Your task to perform on an android device: check battery use Image 0: 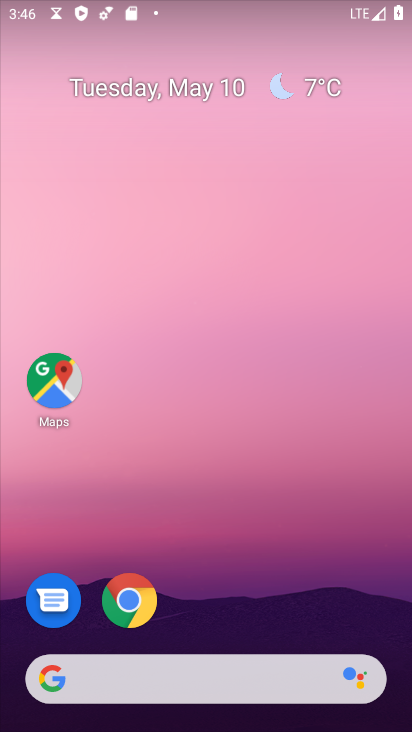
Step 0: drag from (370, 495) to (409, 307)
Your task to perform on an android device: check battery use Image 1: 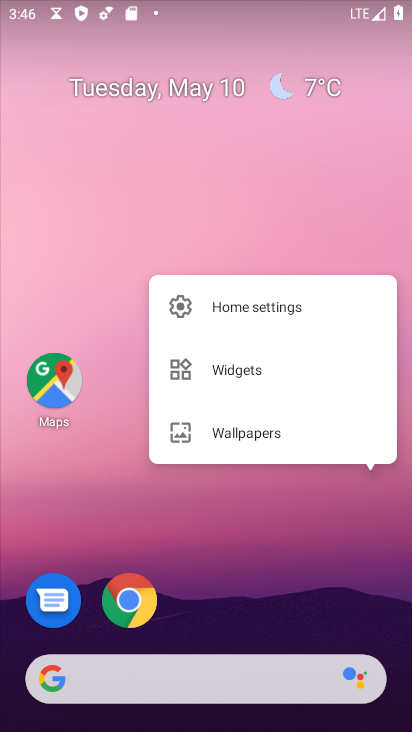
Step 1: click (241, 507)
Your task to perform on an android device: check battery use Image 2: 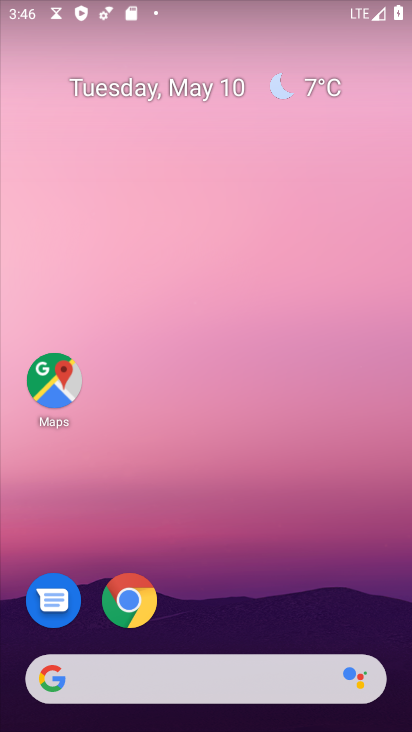
Step 2: drag from (291, 475) to (259, 21)
Your task to perform on an android device: check battery use Image 3: 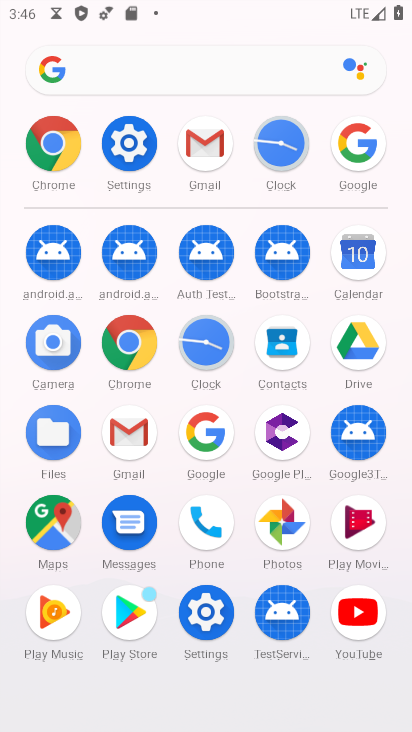
Step 3: click (132, 169)
Your task to perform on an android device: check battery use Image 4: 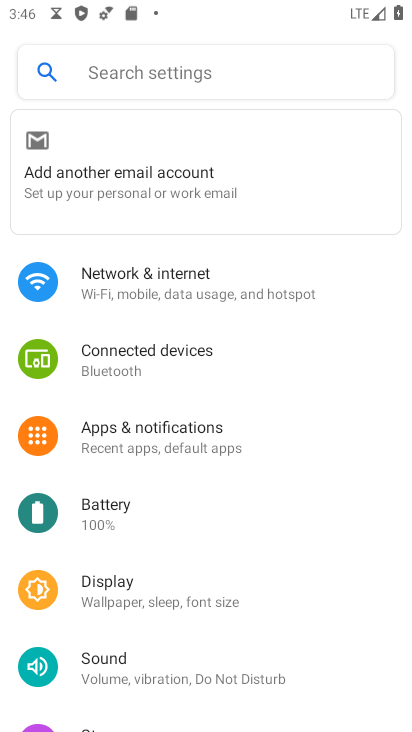
Step 4: click (128, 510)
Your task to perform on an android device: check battery use Image 5: 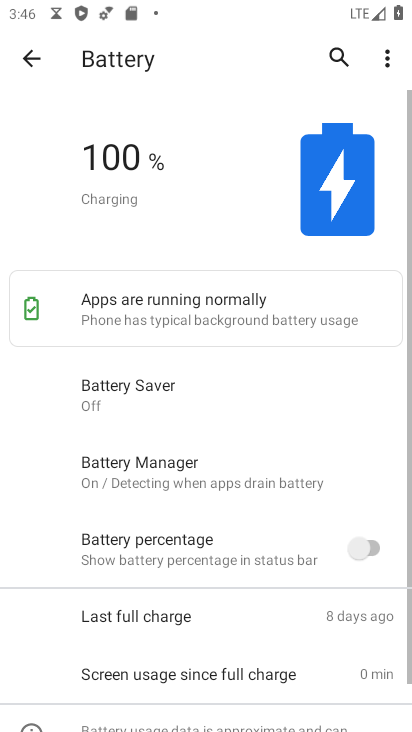
Step 5: task complete